Your task to perform on an android device: Open calendar and show me the fourth week of next month Image 0: 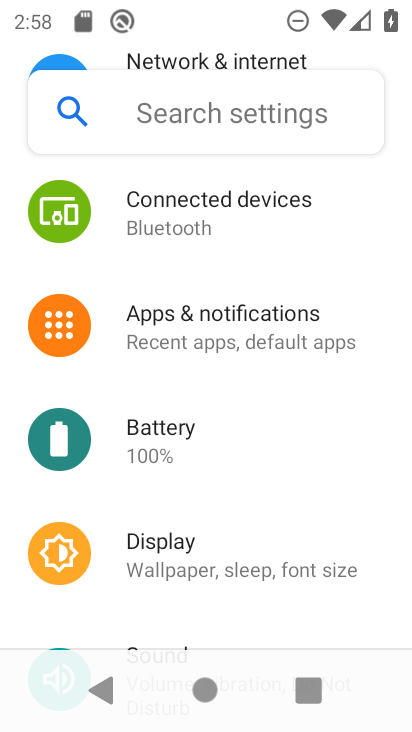
Step 0: press home button
Your task to perform on an android device: Open calendar and show me the fourth week of next month Image 1: 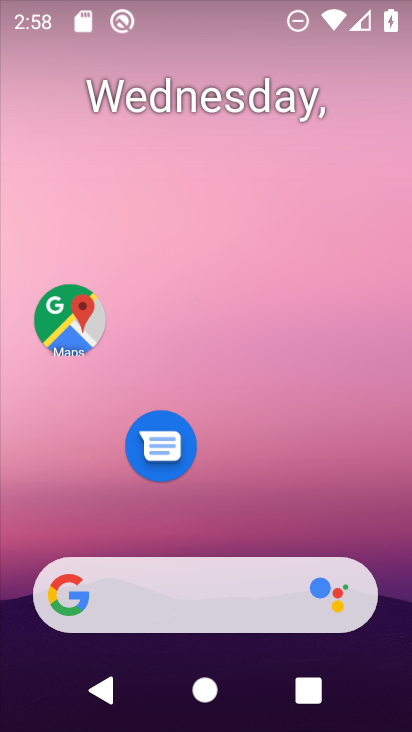
Step 1: drag from (269, 481) to (375, 170)
Your task to perform on an android device: Open calendar and show me the fourth week of next month Image 2: 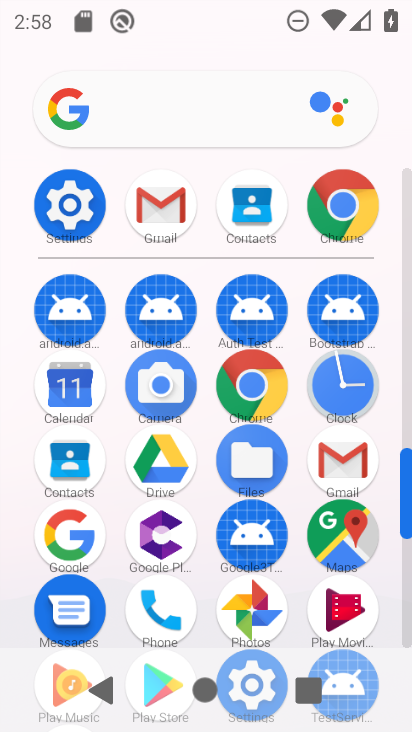
Step 2: click (49, 412)
Your task to perform on an android device: Open calendar and show me the fourth week of next month Image 3: 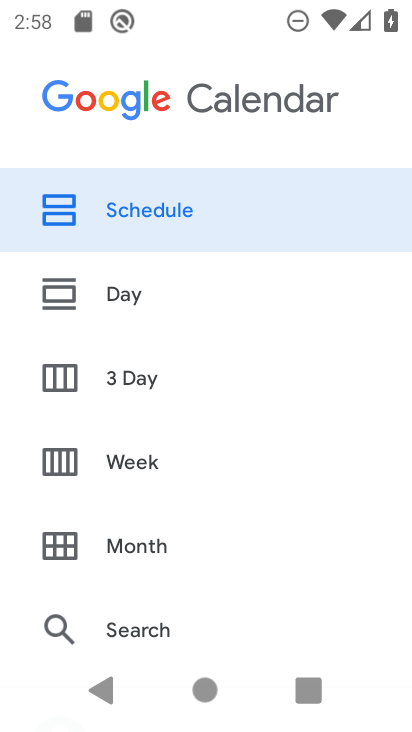
Step 3: click (98, 685)
Your task to perform on an android device: Open calendar and show me the fourth week of next month Image 4: 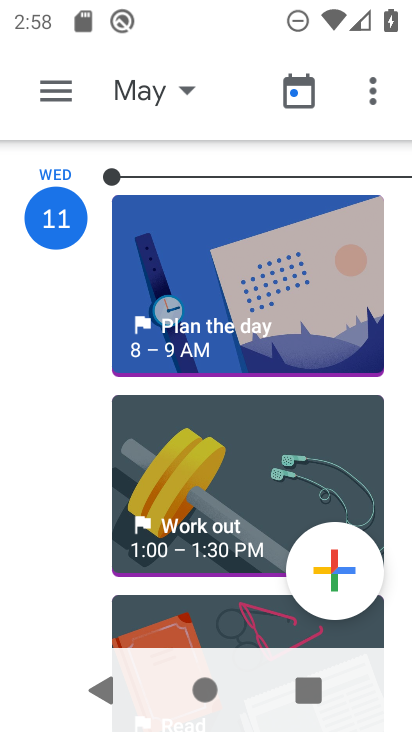
Step 4: click (172, 115)
Your task to perform on an android device: Open calendar and show me the fourth week of next month Image 5: 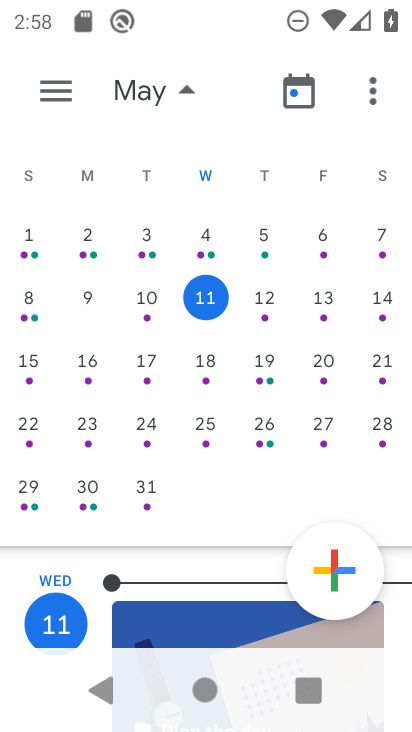
Step 5: drag from (395, 342) to (40, 393)
Your task to perform on an android device: Open calendar and show me the fourth week of next month Image 6: 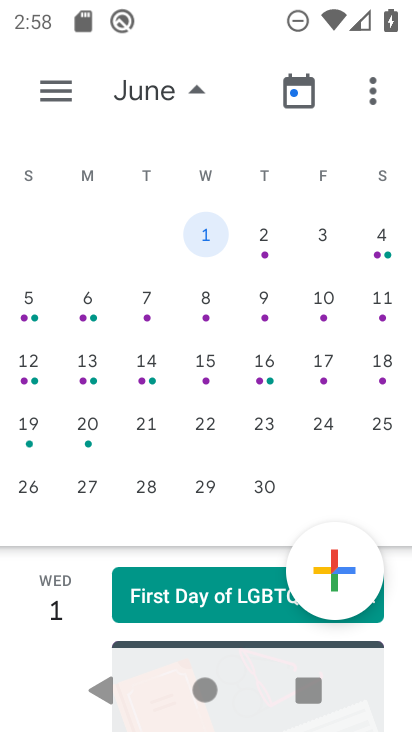
Step 6: click (201, 375)
Your task to perform on an android device: Open calendar and show me the fourth week of next month Image 7: 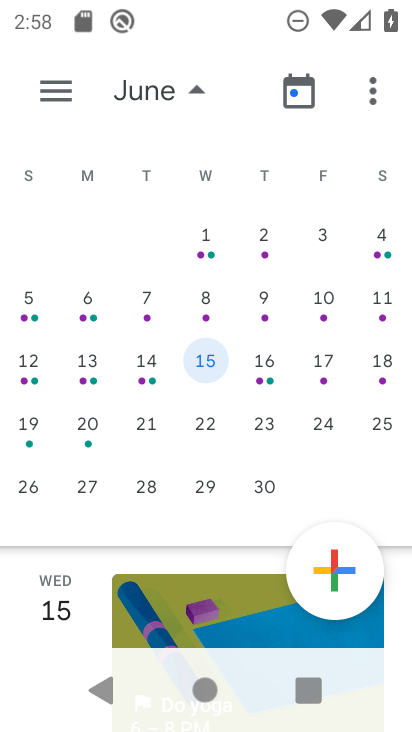
Step 7: click (239, 427)
Your task to perform on an android device: Open calendar and show me the fourth week of next month Image 8: 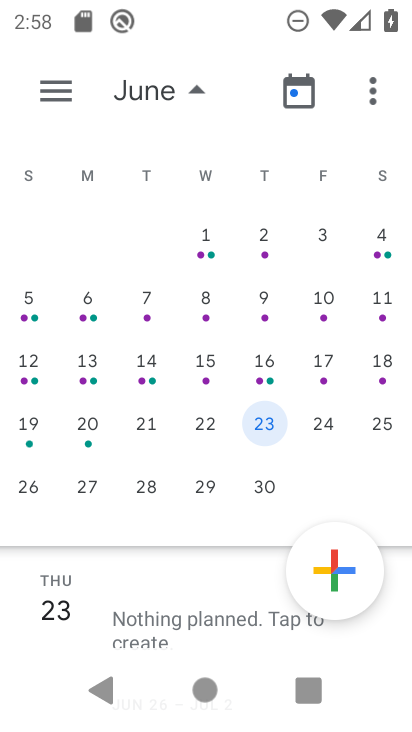
Step 8: click (153, 491)
Your task to perform on an android device: Open calendar and show me the fourth week of next month Image 9: 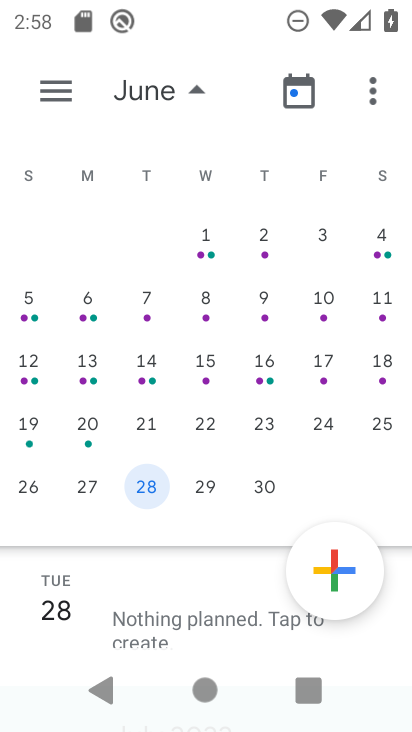
Step 9: task complete